Your task to perform on an android device: turn pop-ups off in chrome Image 0: 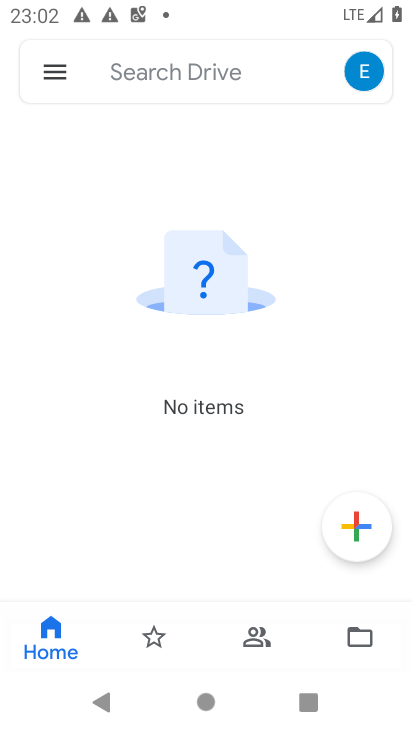
Step 0: press back button
Your task to perform on an android device: turn pop-ups off in chrome Image 1: 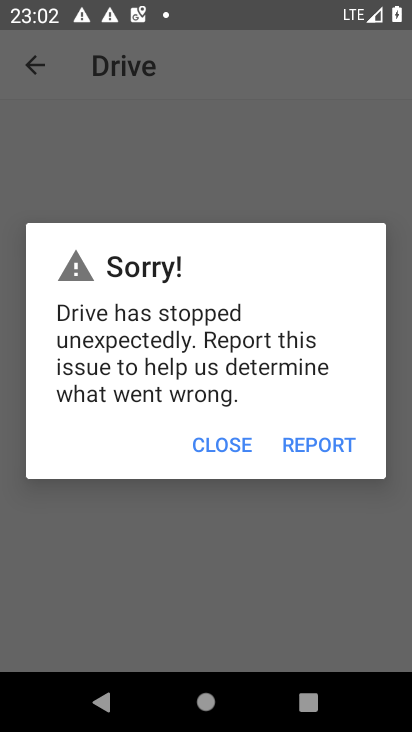
Step 1: press home button
Your task to perform on an android device: turn pop-ups off in chrome Image 2: 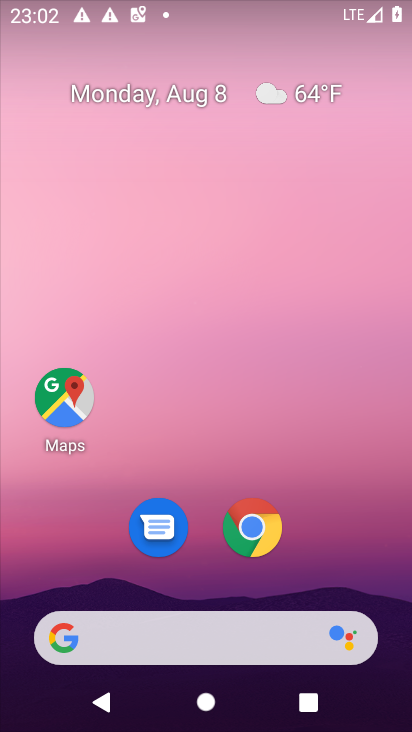
Step 2: click (247, 525)
Your task to perform on an android device: turn pop-ups off in chrome Image 3: 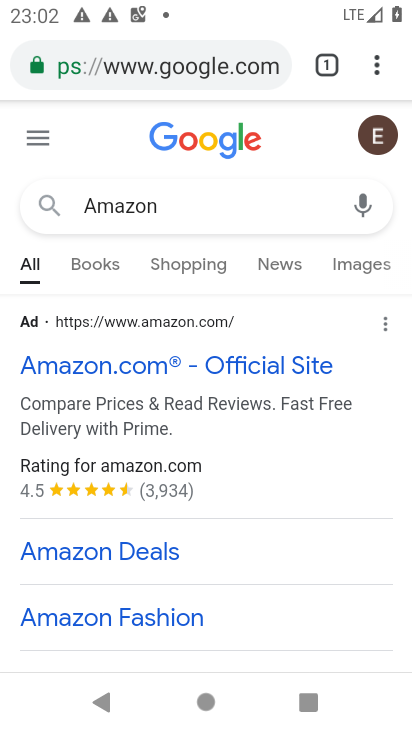
Step 3: click (375, 67)
Your task to perform on an android device: turn pop-ups off in chrome Image 4: 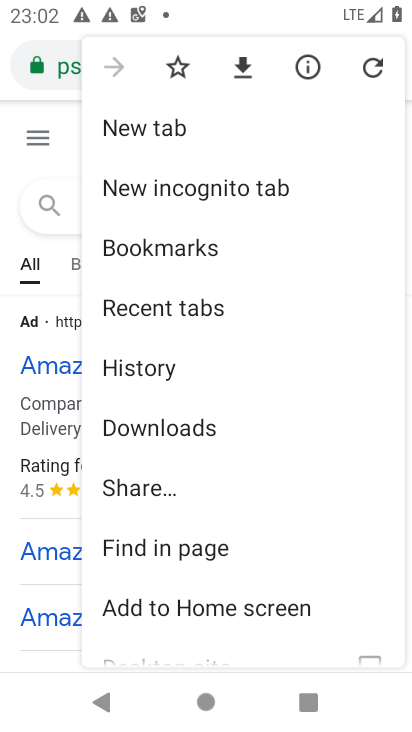
Step 4: drag from (333, 613) to (322, 302)
Your task to perform on an android device: turn pop-ups off in chrome Image 5: 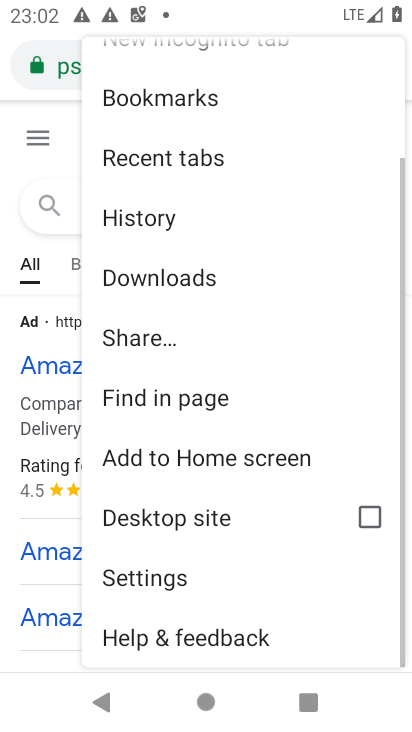
Step 5: click (168, 576)
Your task to perform on an android device: turn pop-ups off in chrome Image 6: 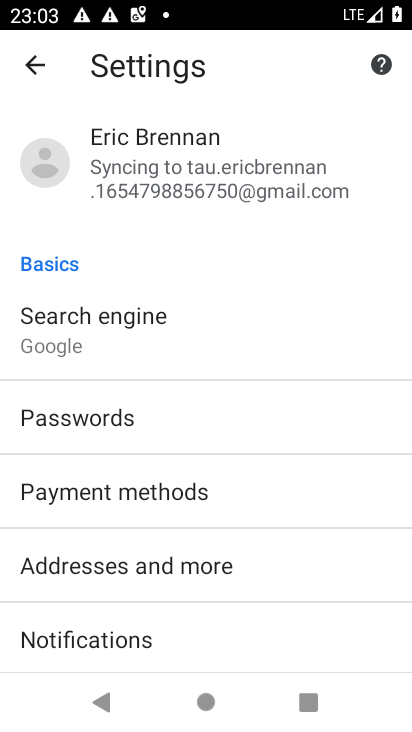
Step 6: drag from (268, 630) to (284, 249)
Your task to perform on an android device: turn pop-ups off in chrome Image 7: 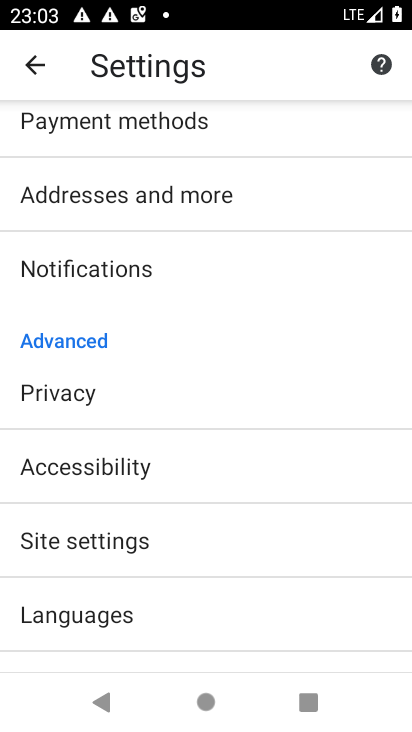
Step 7: drag from (244, 624) to (240, 347)
Your task to perform on an android device: turn pop-ups off in chrome Image 8: 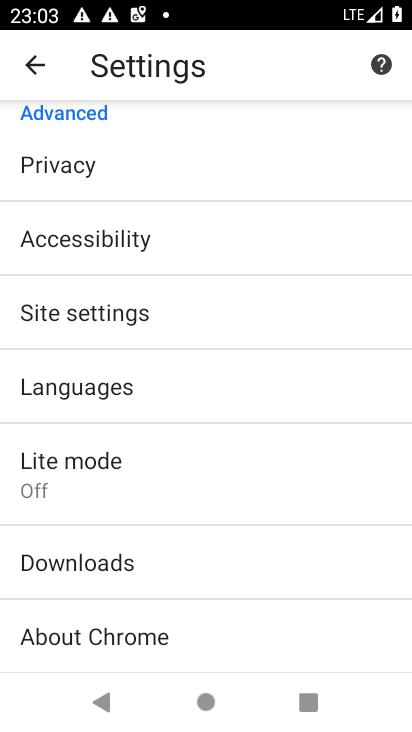
Step 8: click (104, 307)
Your task to perform on an android device: turn pop-ups off in chrome Image 9: 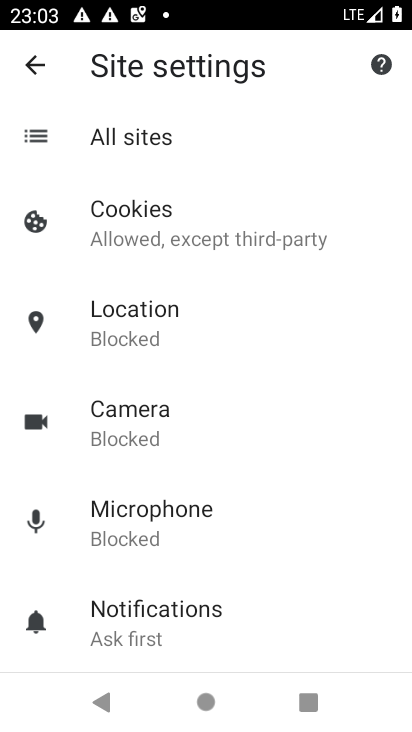
Step 9: drag from (258, 595) to (282, 320)
Your task to perform on an android device: turn pop-ups off in chrome Image 10: 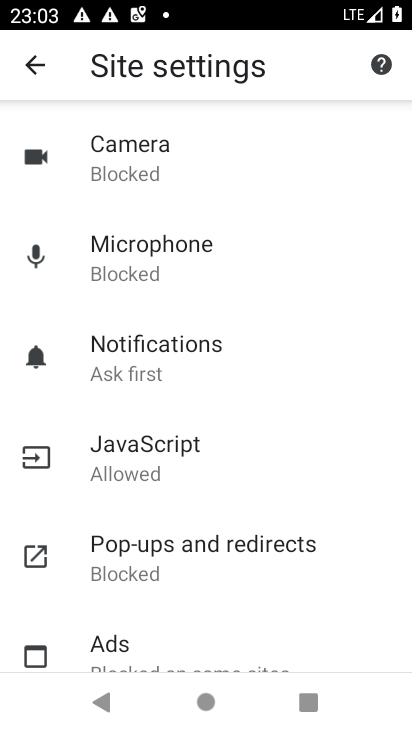
Step 10: drag from (296, 606) to (307, 259)
Your task to perform on an android device: turn pop-ups off in chrome Image 11: 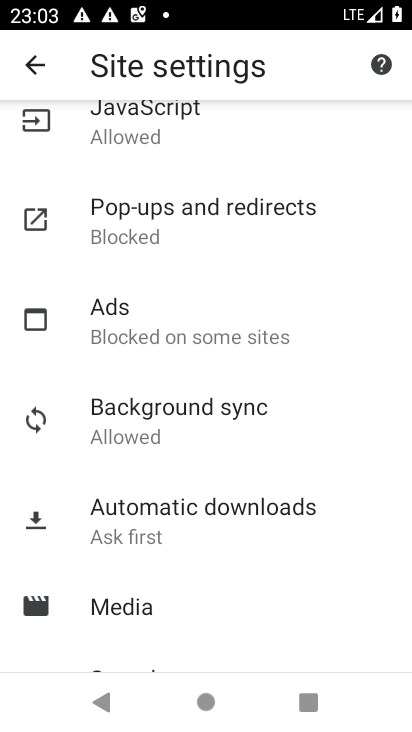
Step 11: click (145, 212)
Your task to perform on an android device: turn pop-ups off in chrome Image 12: 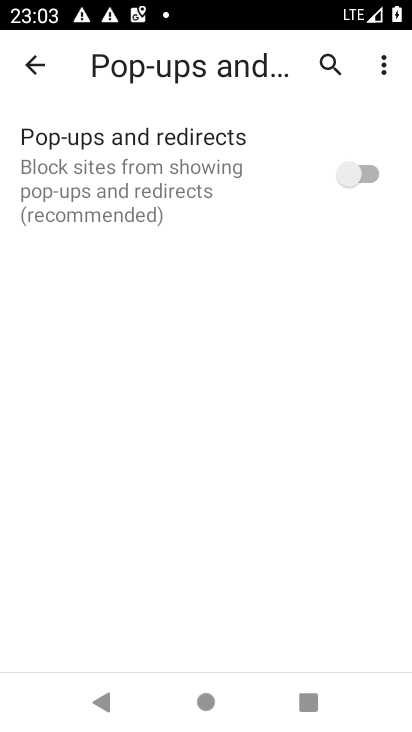
Step 12: click (365, 172)
Your task to perform on an android device: turn pop-ups off in chrome Image 13: 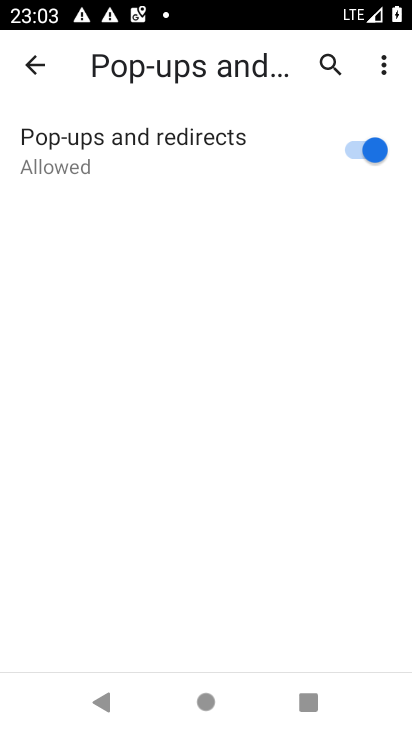
Step 13: click (359, 149)
Your task to perform on an android device: turn pop-ups off in chrome Image 14: 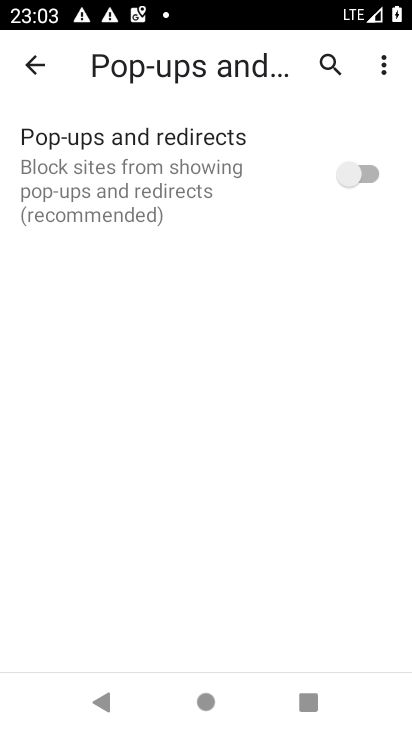
Step 14: task complete